Your task to perform on an android device: change text size in settings app Image 0: 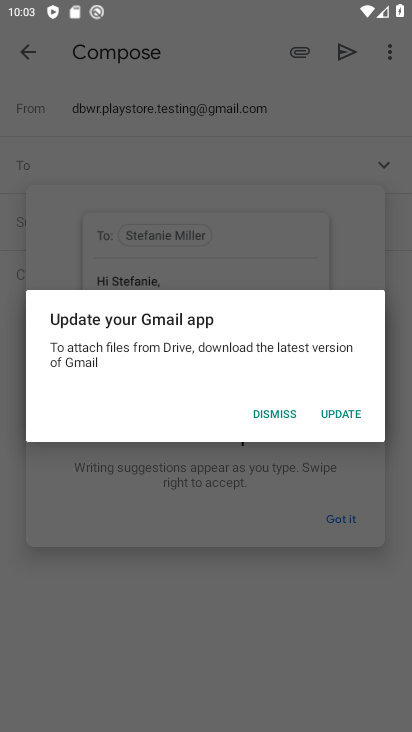
Step 0: press home button
Your task to perform on an android device: change text size in settings app Image 1: 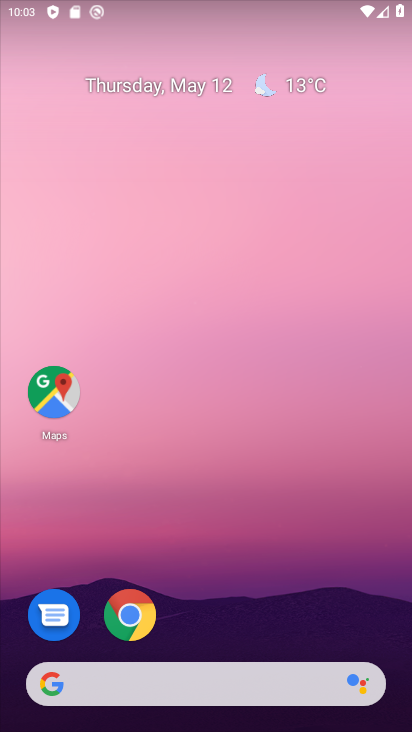
Step 1: drag from (284, 491) to (316, 34)
Your task to perform on an android device: change text size in settings app Image 2: 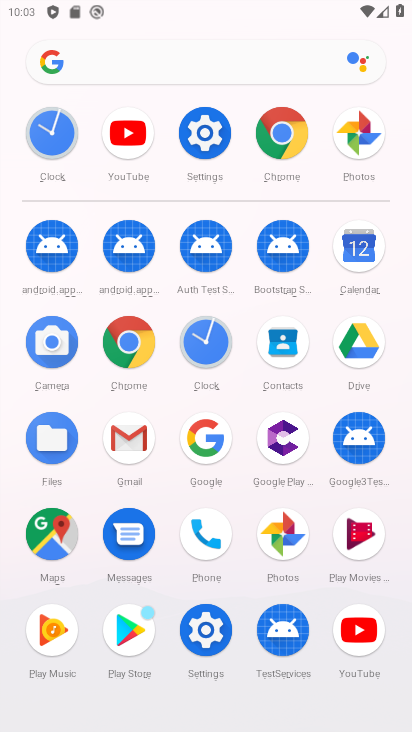
Step 2: click (209, 126)
Your task to perform on an android device: change text size in settings app Image 3: 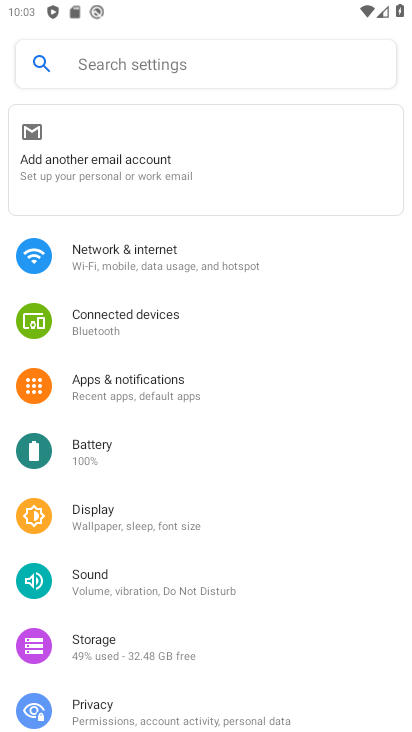
Step 3: click (153, 523)
Your task to perform on an android device: change text size in settings app Image 4: 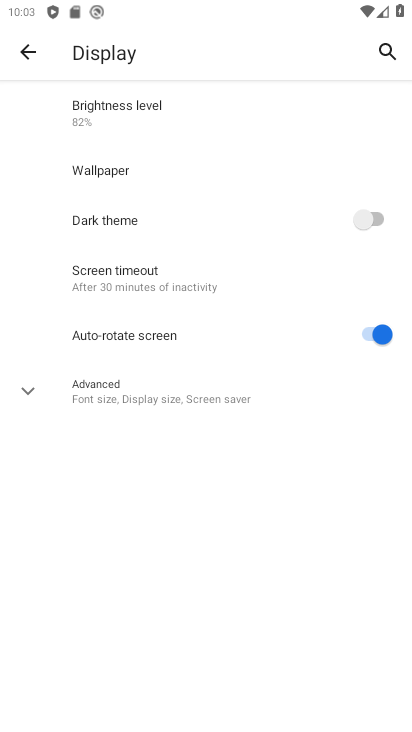
Step 4: click (156, 403)
Your task to perform on an android device: change text size in settings app Image 5: 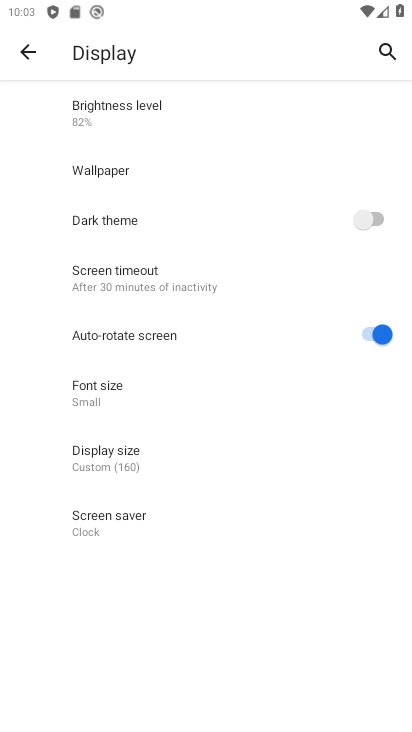
Step 5: click (79, 395)
Your task to perform on an android device: change text size in settings app Image 6: 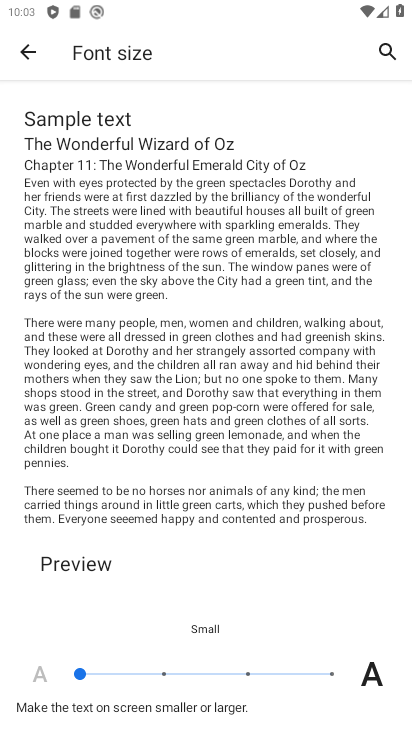
Step 6: click (137, 679)
Your task to perform on an android device: change text size in settings app Image 7: 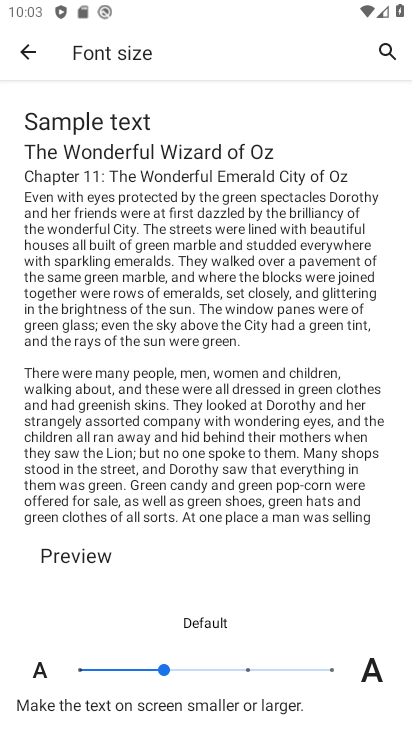
Step 7: click (219, 671)
Your task to perform on an android device: change text size in settings app Image 8: 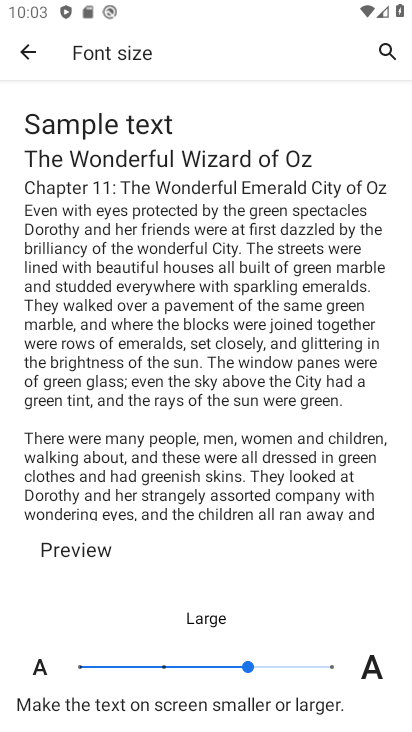
Step 8: task complete